Your task to perform on an android device: toggle priority inbox in the gmail app Image 0: 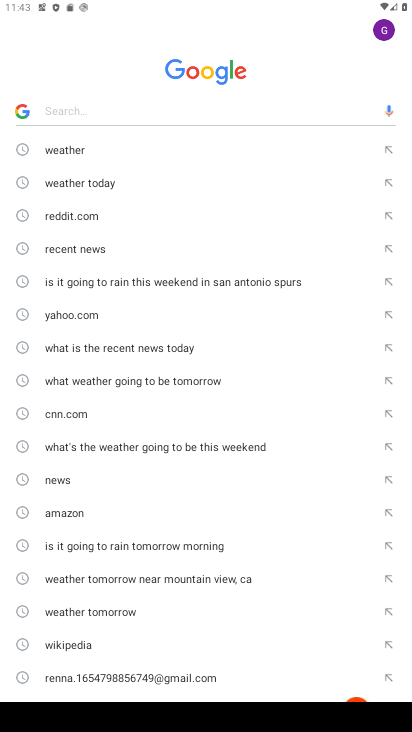
Step 0: press home button
Your task to perform on an android device: toggle priority inbox in the gmail app Image 1: 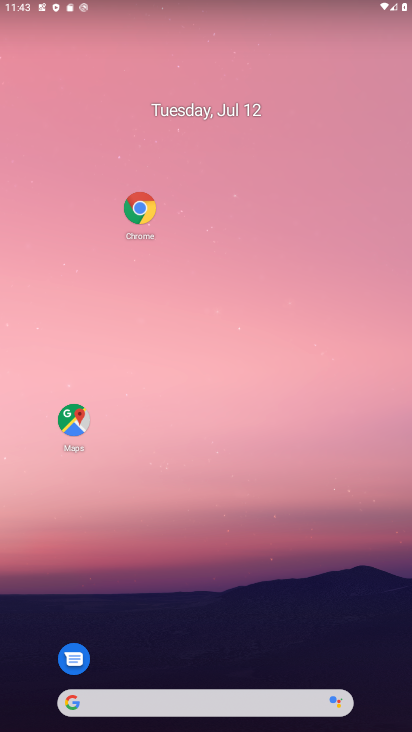
Step 1: drag from (214, 658) to (103, 0)
Your task to perform on an android device: toggle priority inbox in the gmail app Image 2: 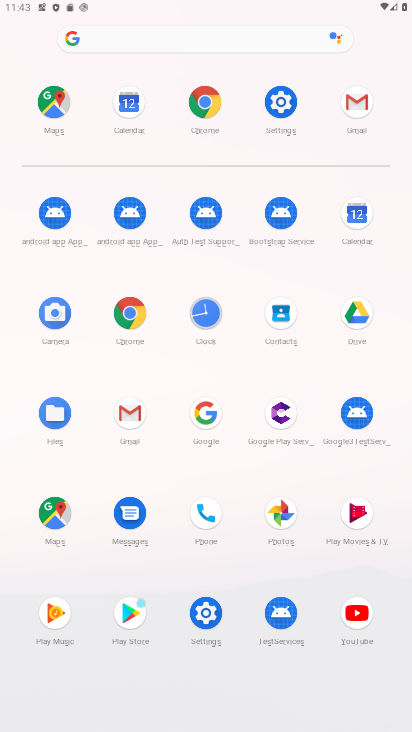
Step 2: click (137, 420)
Your task to perform on an android device: toggle priority inbox in the gmail app Image 3: 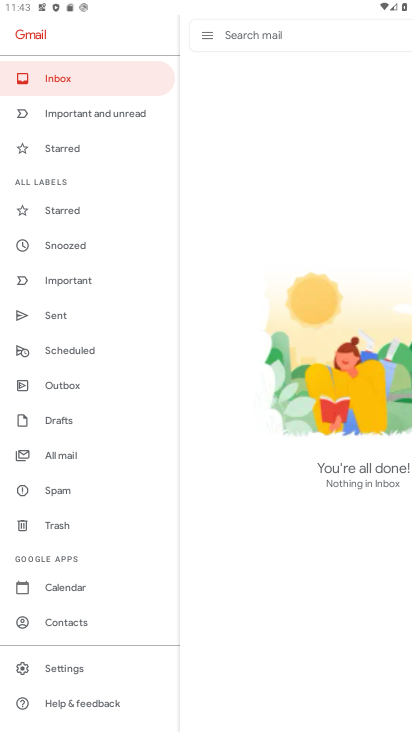
Step 3: click (105, 667)
Your task to perform on an android device: toggle priority inbox in the gmail app Image 4: 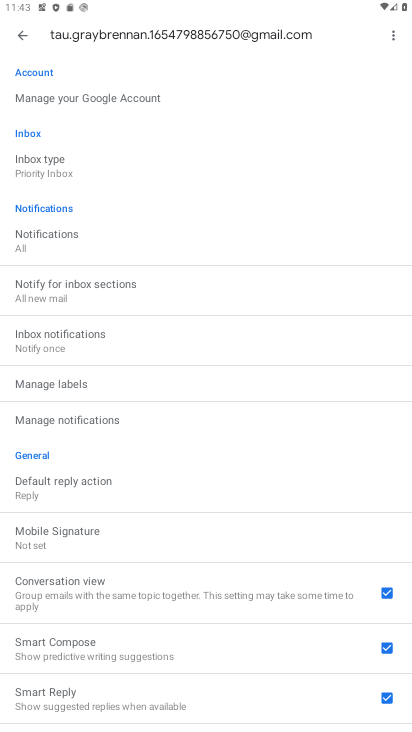
Step 4: click (50, 180)
Your task to perform on an android device: toggle priority inbox in the gmail app Image 5: 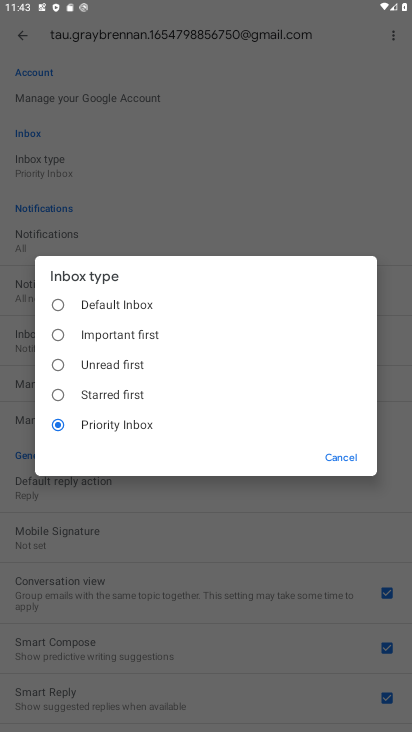
Step 5: click (50, 298)
Your task to perform on an android device: toggle priority inbox in the gmail app Image 6: 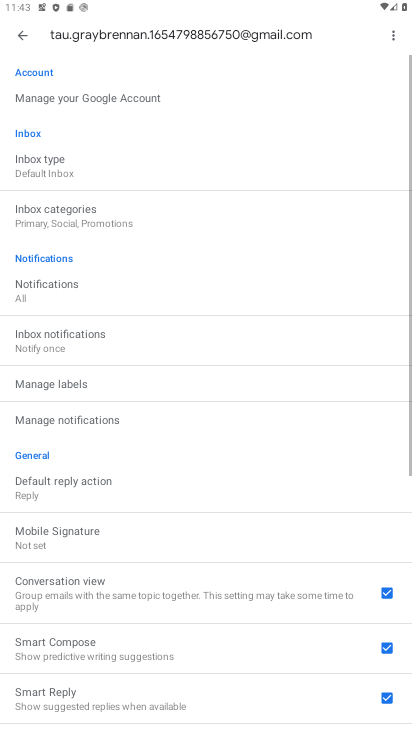
Step 6: task complete